Your task to perform on an android device: manage bookmarks in the chrome app Image 0: 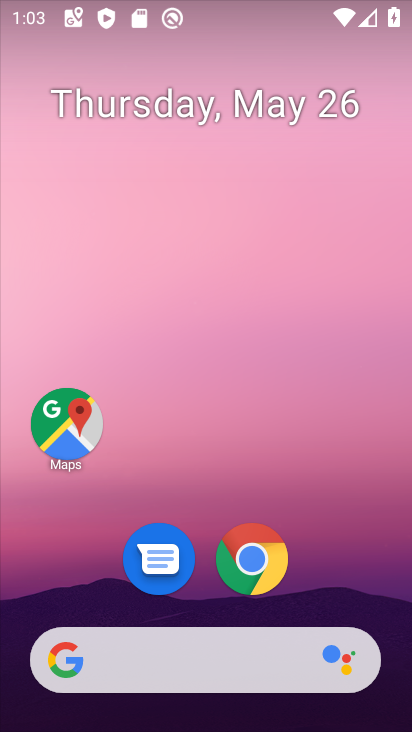
Step 0: click (265, 579)
Your task to perform on an android device: manage bookmarks in the chrome app Image 1: 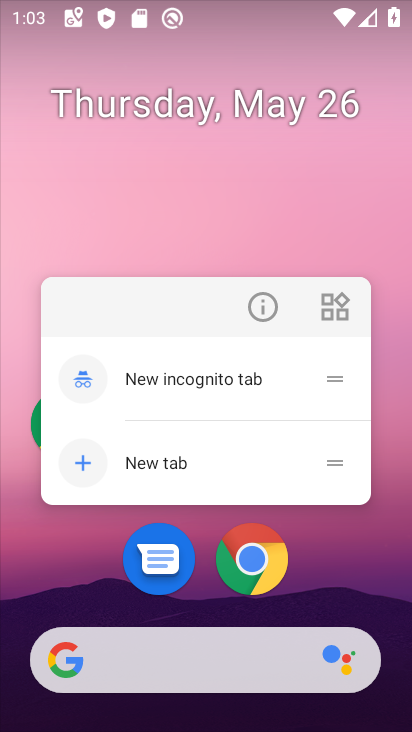
Step 1: click (250, 559)
Your task to perform on an android device: manage bookmarks in the chrome app Image 2: 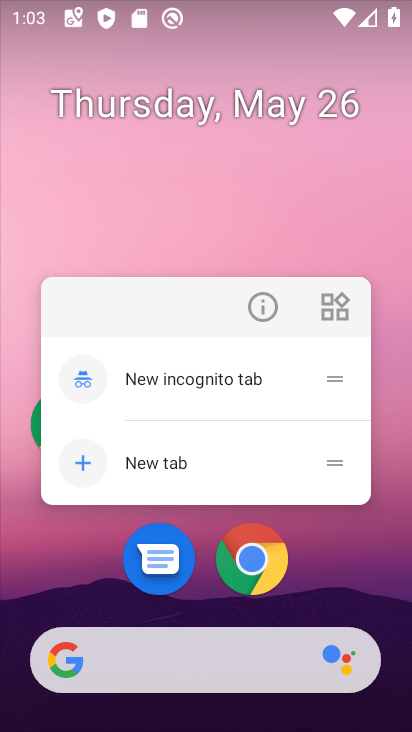
Step 2: click (250, 576)
Your task to perform on an android device: manage bookmarks in the chrome app Image 3: 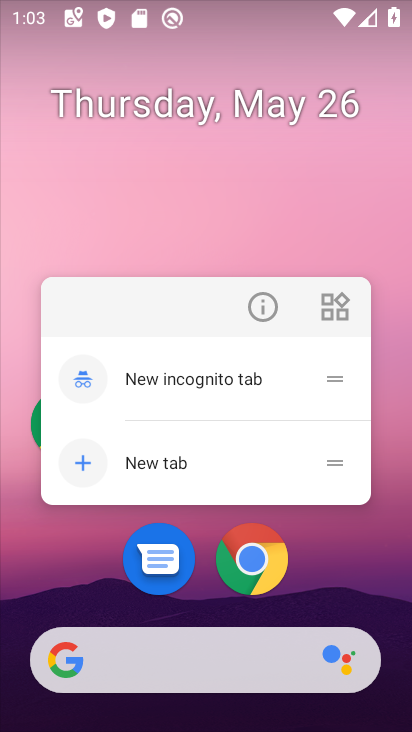
Step 3: click (250, 577)
Your task to perform on an android device: manage bookmarks in the chrome app Image 4: 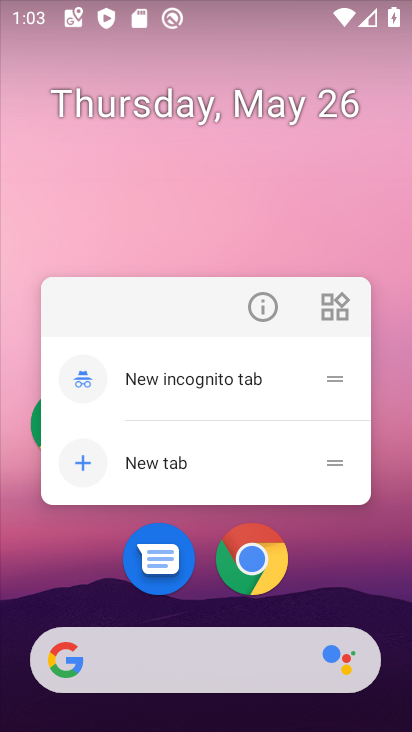
Step 4: click (253, 561)
Your task to perform on an android device: manage bookmarks in the chrome app Image 5: 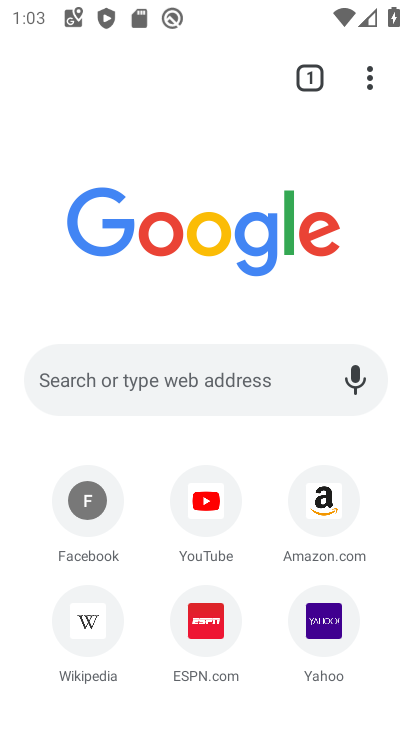
Step 5: task complete